Your task to perform on an android device: Open ESPN.com Image 0: 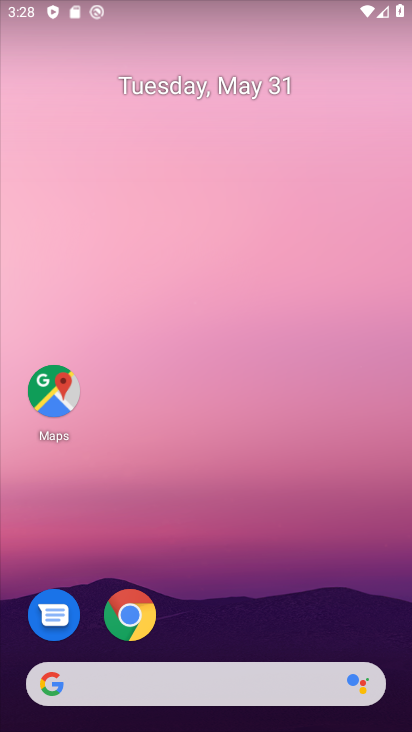
Step 0: drag from (246, 633) to (211, 87)
Your task to perform on an android device: Open ESPN.com Image 1: 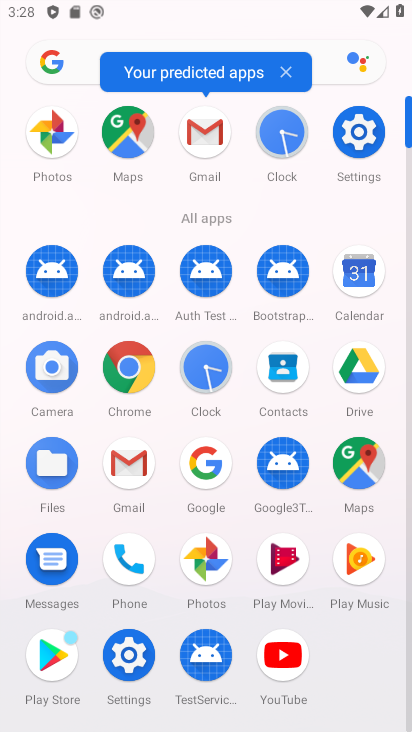
Step 1: click (118, 379)
Your task to perform on an android device: Open ESPN.com Image 2: 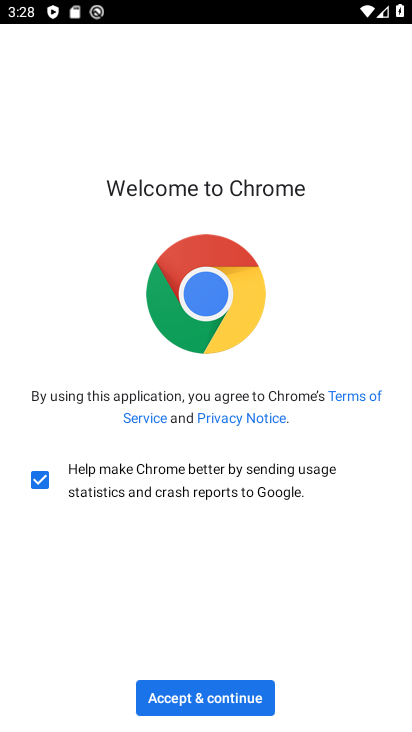
Step 2: click (241, 697)
Your task to perform on an android device: Open ESPN.com Image 3: 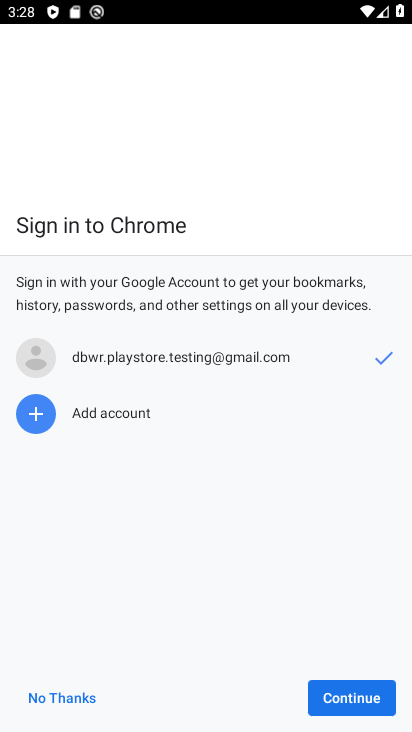
Step 3: click (323, 699)
Your task to perform on an android device: Open ESPN.com Image 4: 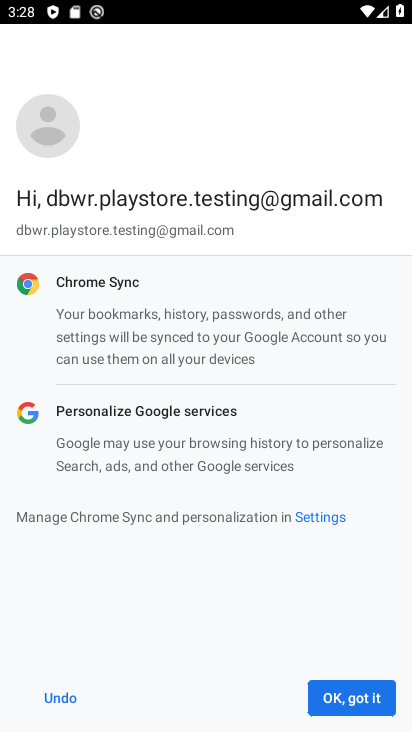
Step 4: click (352, 701)
Your task to perform on an android device: Open ESPN.com Image 5: 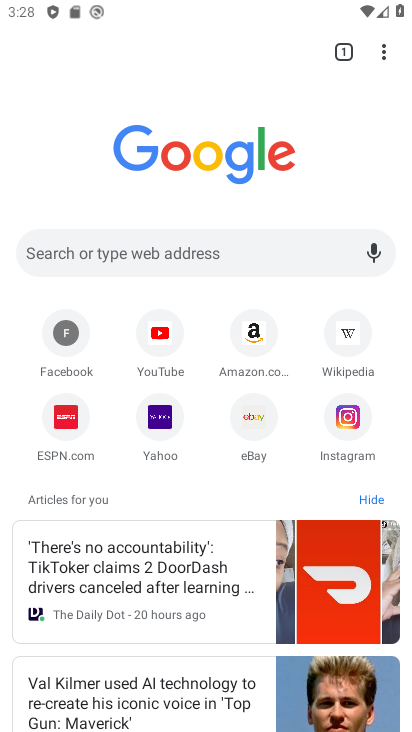
Step 5: click (68, 415)
Your task to perform on an android device: Open ESPN.com Image 6: 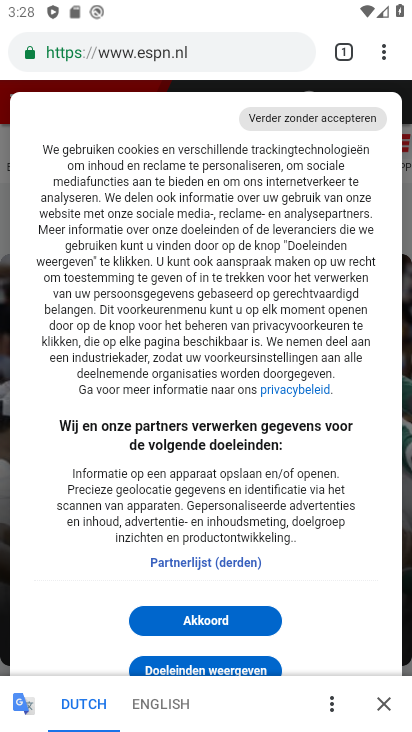
Step 6: task complete